Your task to perform on an android device: toggle data saver in the chrome app Image 0: 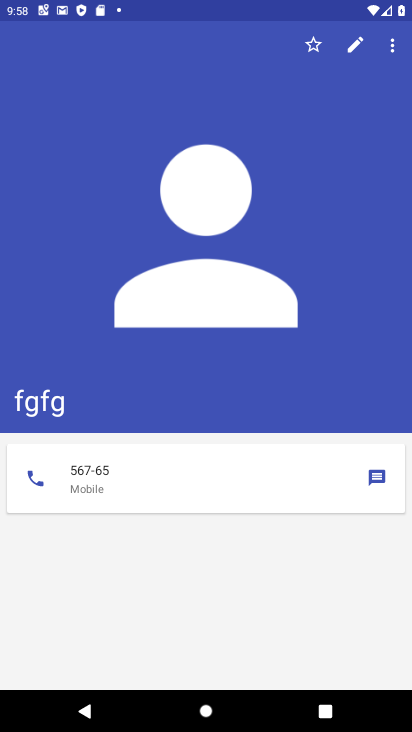
Step 0: press back button
Your task to perform on an android device: toggle data saver in the chrome app Image 1: 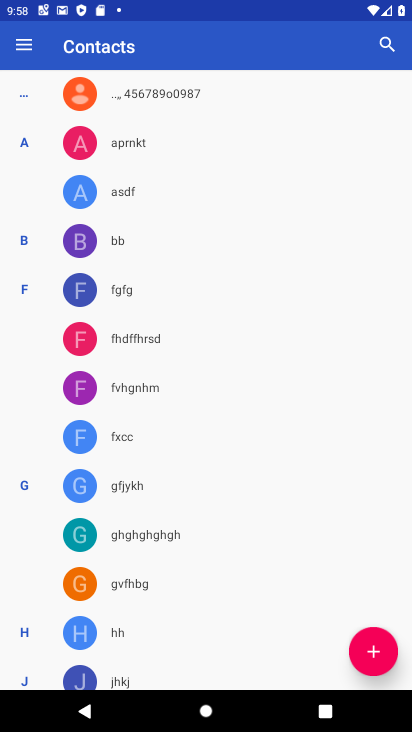
Step 1: press back button
Your task to perform on an android device: toggle data saver in the chrome app Image 2: 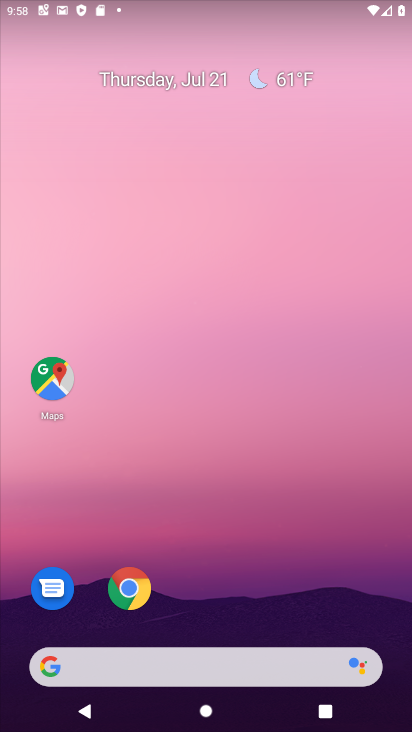
Step 2: click (130, 587)
Your task to perform on an android device: toggle data saver in the chrome app Image 3: 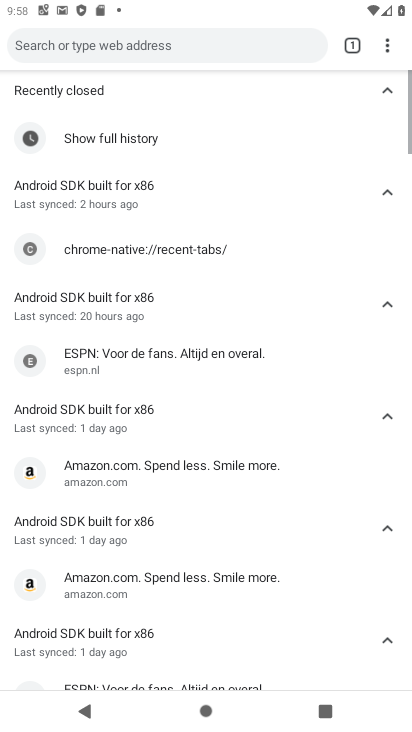
Step 3: drag from (387, 49) to (217, 375)
Your task to perform on an android device: toggle data saver in the chrome app Image 4: 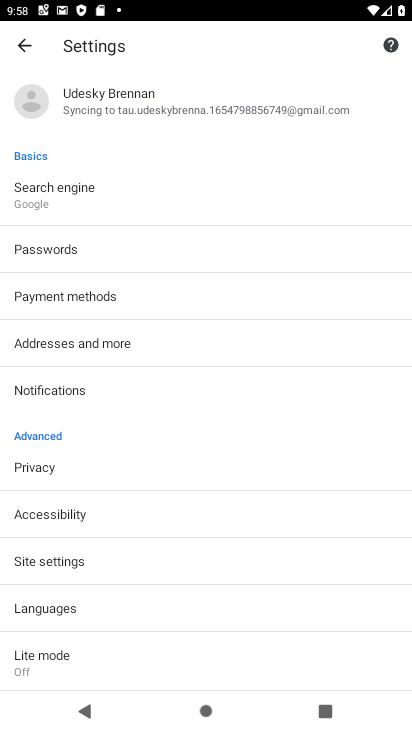
Step 4: click (75, 654)
Your task to perform on an android device: toggle data saver in the chrome app Image 5: 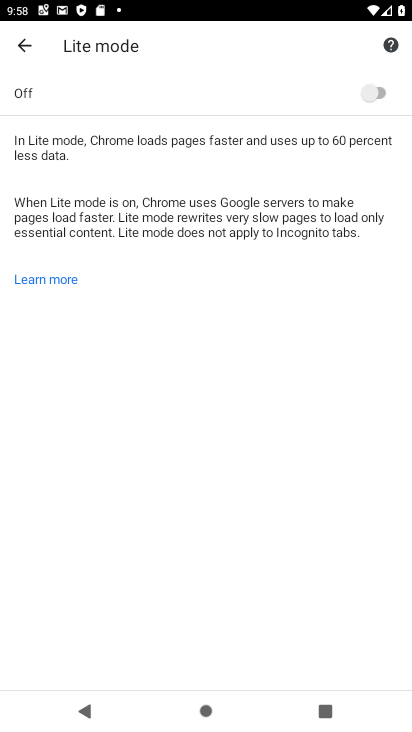
Step 5: click (369, 93)
Your task to perform on an android device: toggle data saver in the chrome app Image 6: 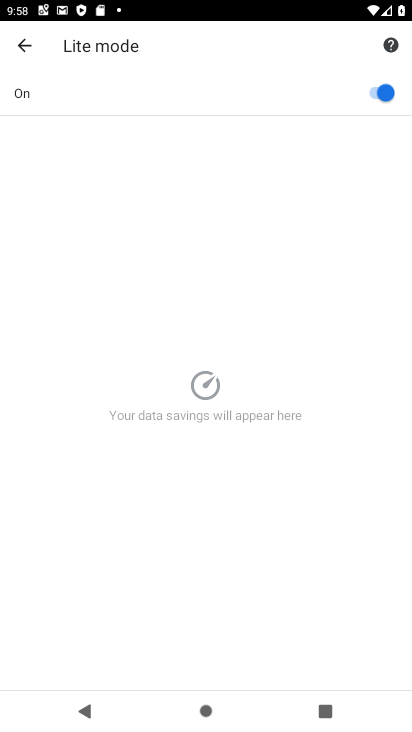
Step 6: task complete